Your task to perform on an android device: turn on priority inbox in the gmail app Image 0: 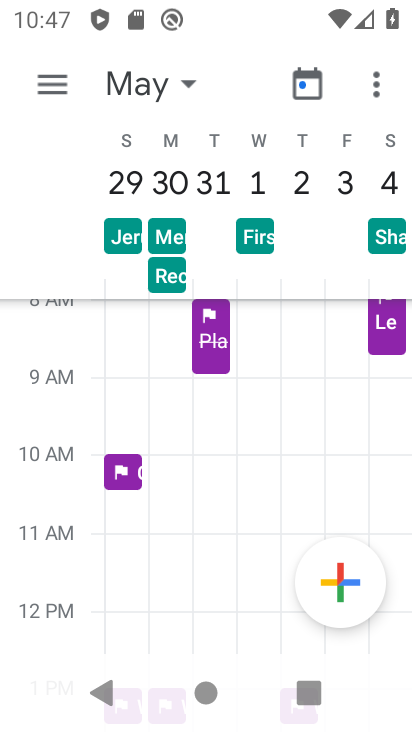
Step 0: press home button
Your task to perform on an android device: turn on priority inbox in the gmail app Image 1: 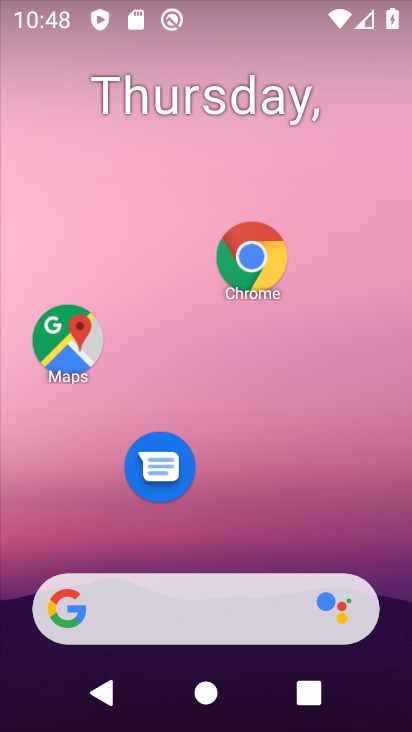
Step 1: drag from (182, 477) to (260, 230)
Your task to perform on an android device: turn on priority inbox in the gmail app Image 2: 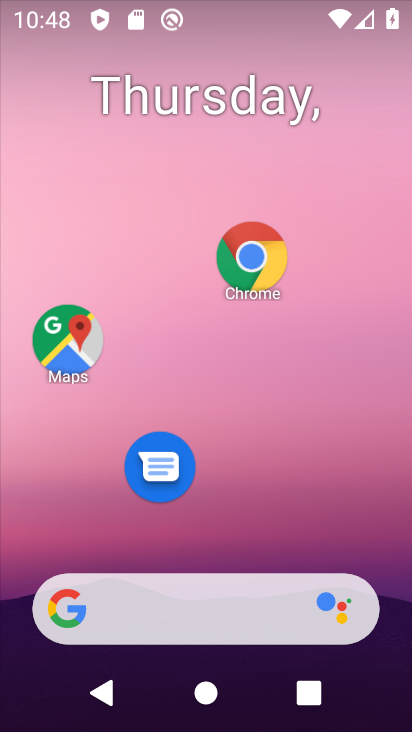
Step 2: drag from (245, 467) to (285, 192)
Your task to perform on an android device: turn on priority inbox in the gmail app Image 3: 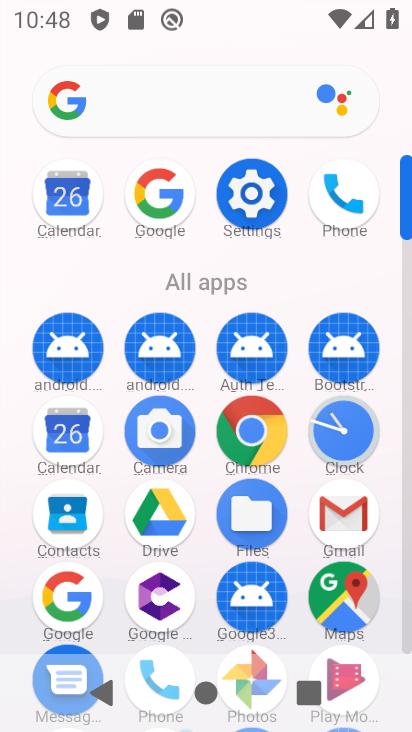
Step 3: click (349, 508)
Your task to perform on an android device: turn on priority inbox in the gmail app Image 4: 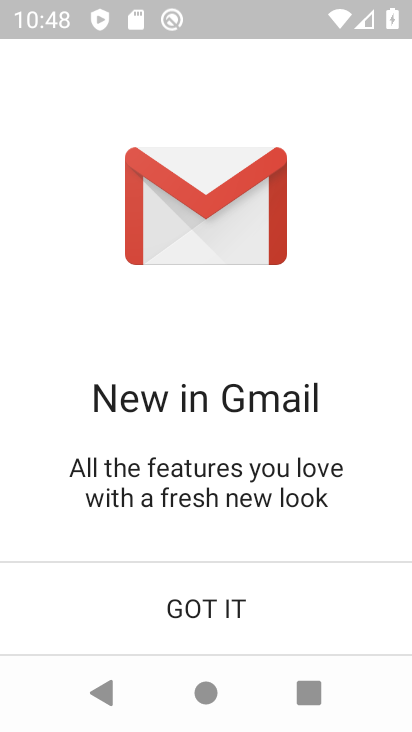
Step 4: click (205, 603)
Your task to perform on an android device: turn on priority inbox in the gmail app Image 5: 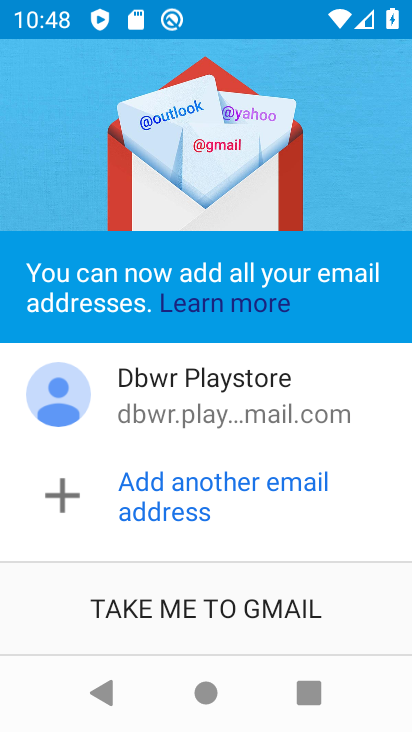
Step 5: click (233, 592)
Your task to perform on an android device: turn on priority inbox in the gmail app Image 6: 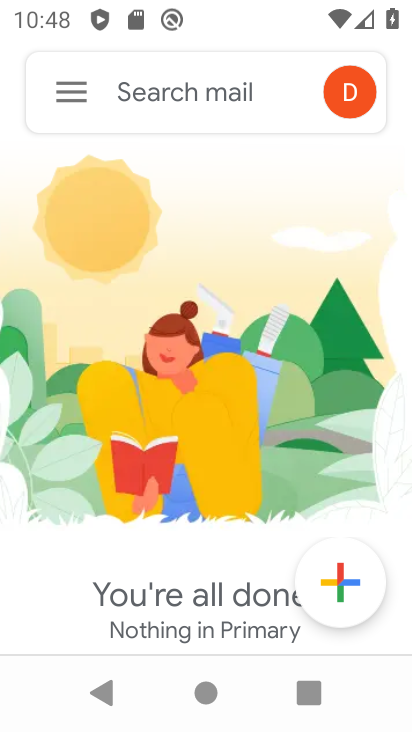
Step 6: click (64, 92)
Your task to perform on an android device: turn on priority inbox in the gmail app Image 7: 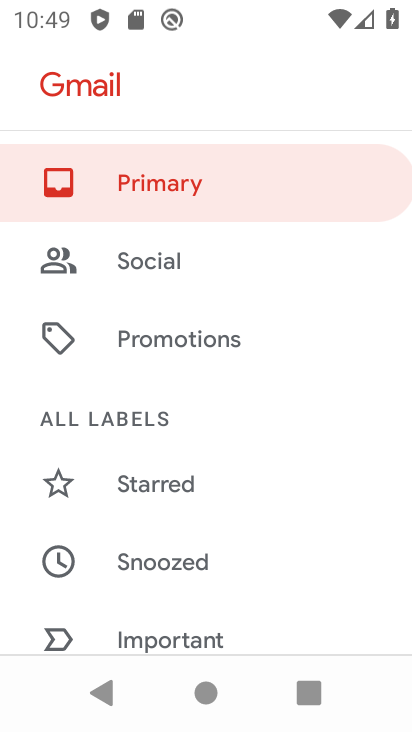
Step 7: drag from (205, 578) to (212, 217)
Your task to perform on an android device: turn on priority inbox in the gmail app Image 8: 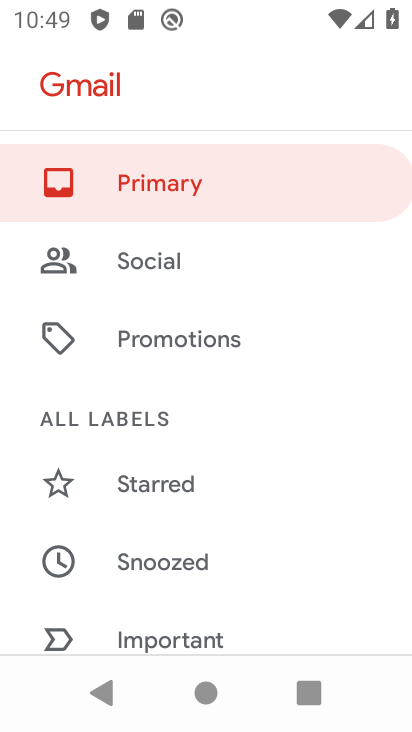
Step 8: drag from (200, 563) to (230, 258)
Your task to perform on an android device: turn on priority inbox in the gmail app Image 9: 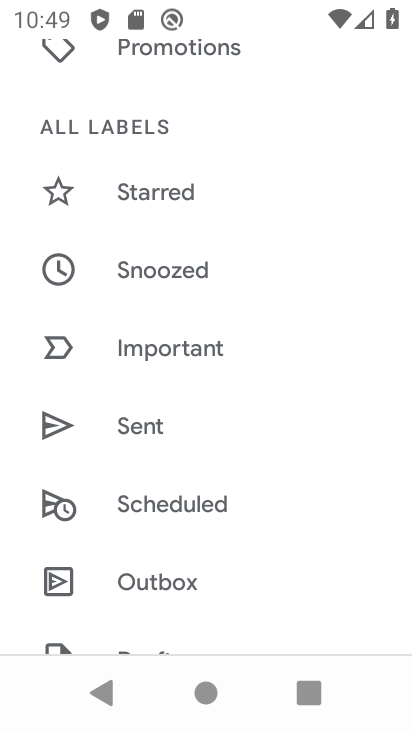
Step 9: drag from (158, 619) to (181, 352)
Your task to perform on an android device: turn on priority inbox in the gmail app Image 10: 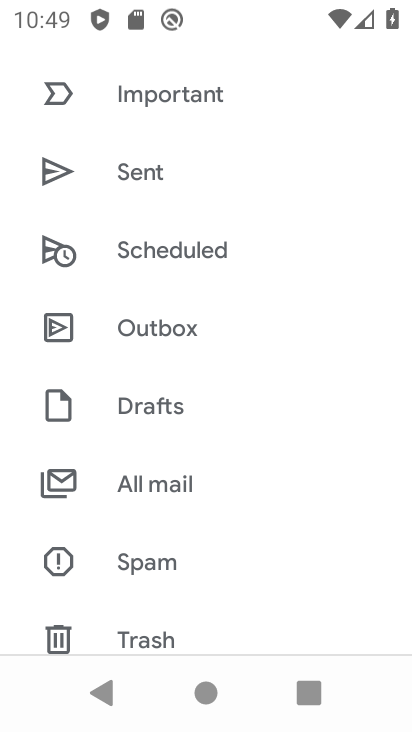
Step 10: drag from (158, 619) to (184, 306)
Your task to perform on an android device: turn on priority inbox in the gmail app Image 11: 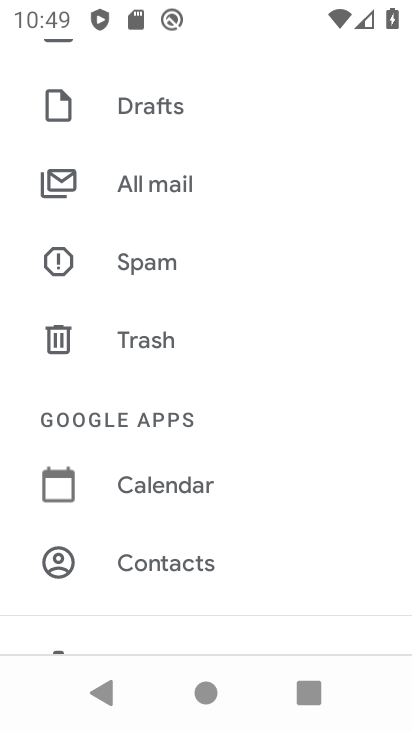
Step 11: drag from (160, 566) to (187, 259)
Your task to perform on an android device: turn on priority inbox in the gmail app Image 12: 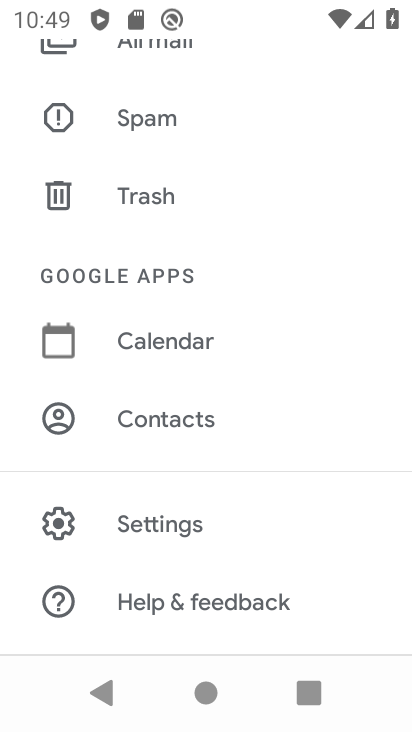
Step 12: click (154, 527)
Your task to perform on an android device: turn on priority inbox in the gmail app Image 13: 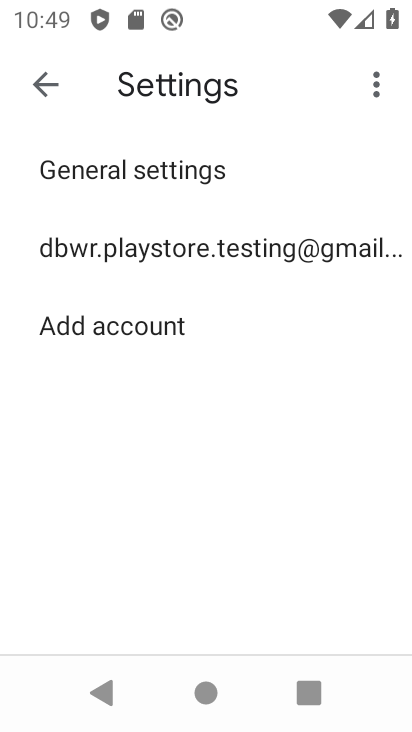
Step 13: click (158, 254)
Your task to perform on an android device: turn on priority inbox in the gmail app Image 14: 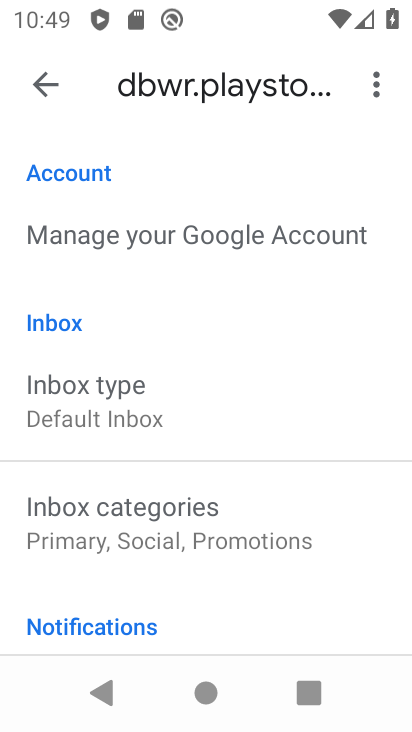
Step 14: click (136, 400)
Your task to perform on an android device: turn on priority inbox in the gmail app Image 15: 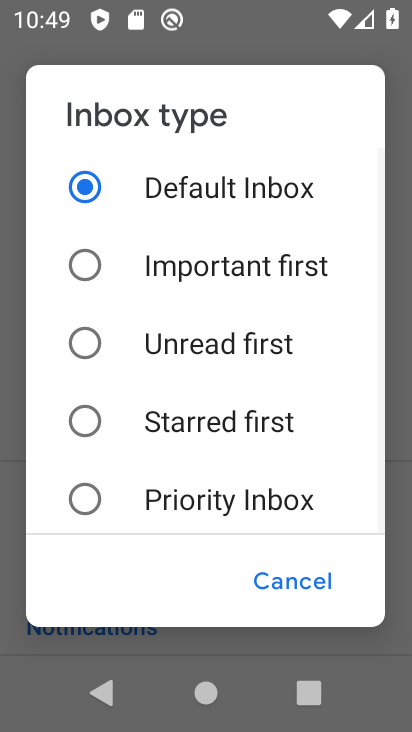
Step 15: click (125, 485)
Your task to perform on an android device: turn on priority inbox in the gmail app Image 16: 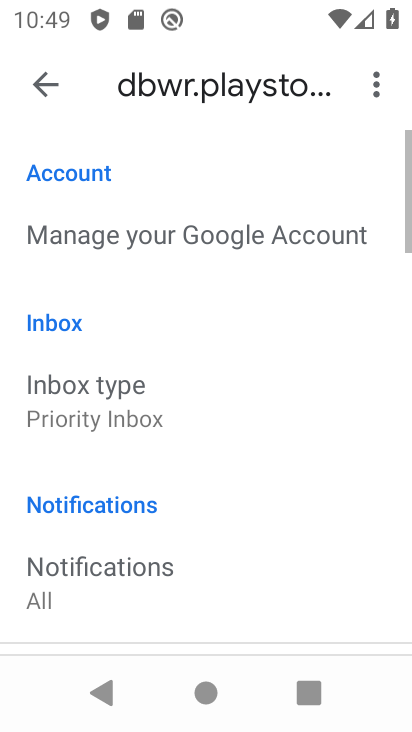
Step 16: task complete